Your task to perform on an android device: search for starred emails in the gmail app Image 0: 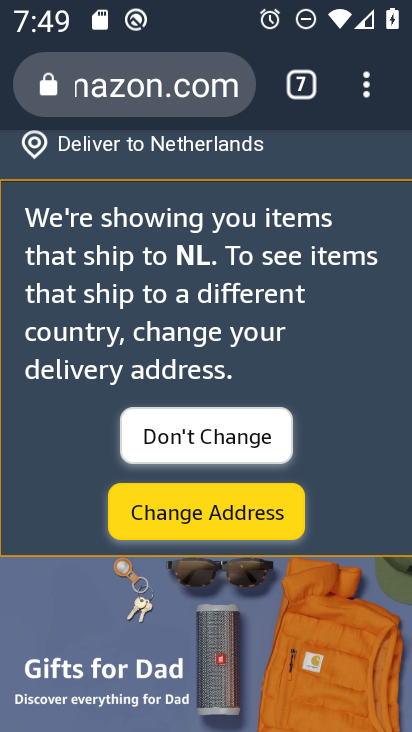
Step 0: press home button
Your task to perform on an android device: search for starred emails in the gmail app Image 1: 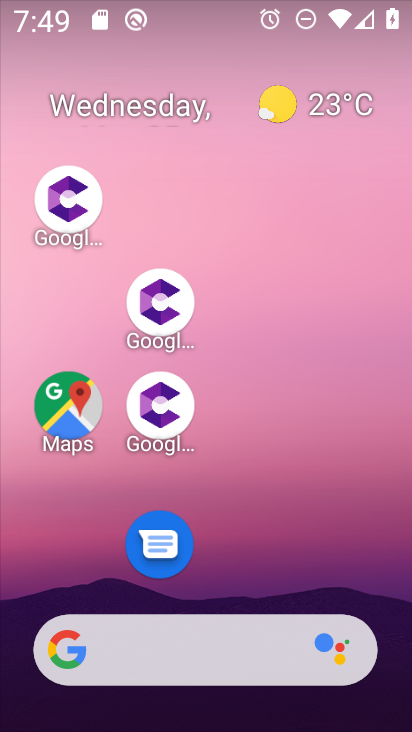
Step 1: drag from (293, 503) to (236, 24)
Your task to perform on an android device: search for starred emails in the gmail app Image 2: 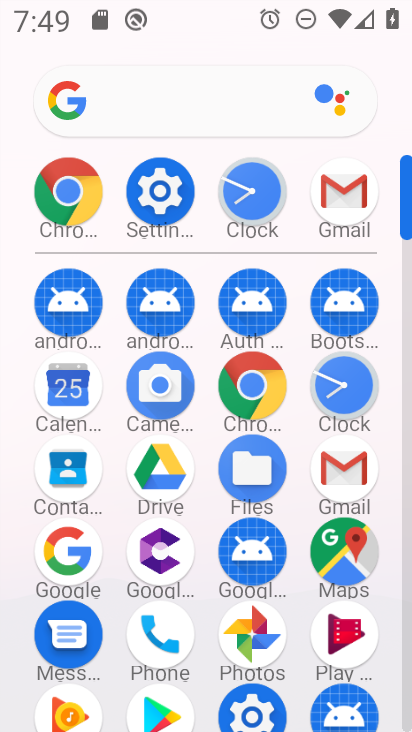
Step 2: click (349, 172)
Your task to perform on an android device: search for starred emails in the gmail app Image 3: 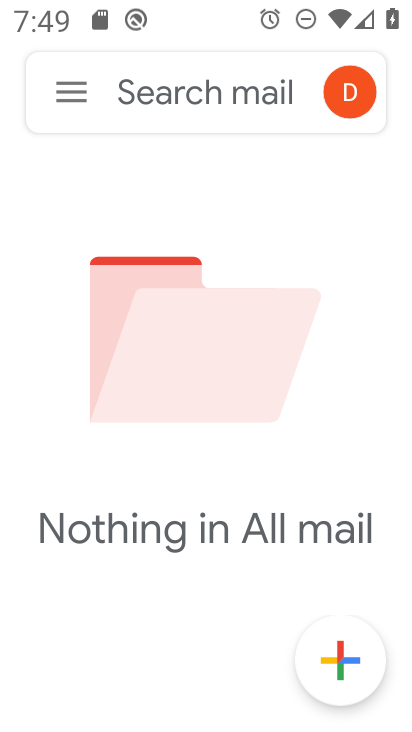
Step 3: click (64, 96)
Your task to perform on an android device: search for starred emails in the gmail app Image 4: 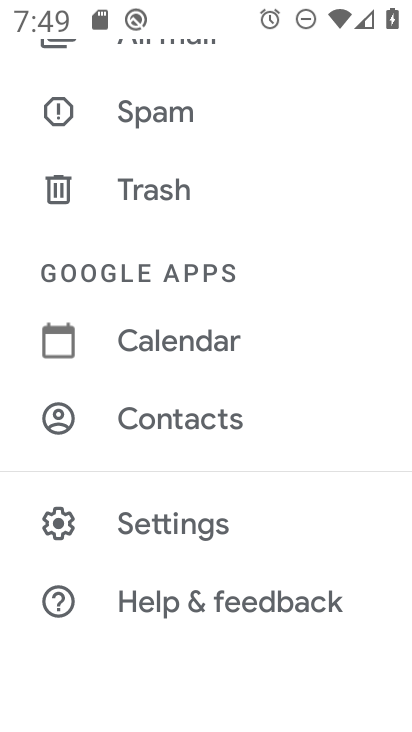
Step 4: drag from (260, 356) to (286, 693)
Your task to perform on an android device: search for starred emails in the gmail app Image 5: 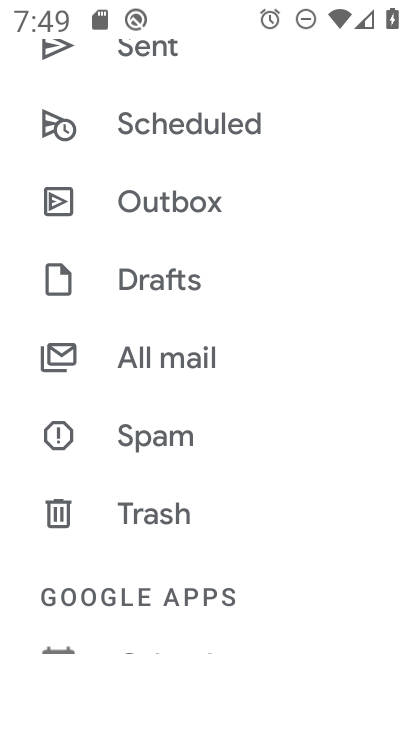
Step 5: drag from (264, 298) to (264, 713)
Your task to perform on an android device: search for starred emails in the gmail app Image 6: 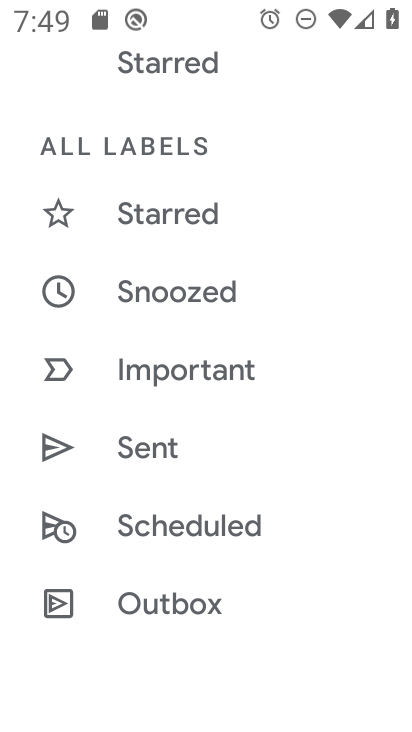
Step 6: click (140, 211)
Your task to perform on an android device: search for starred emails in the gmail app Image 7: 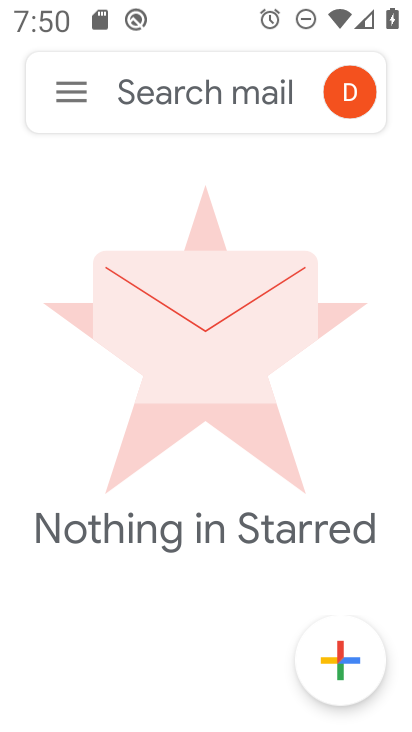
Step 7: task complete